Your task to perform on an android device: change the clock display to analog Image 0: 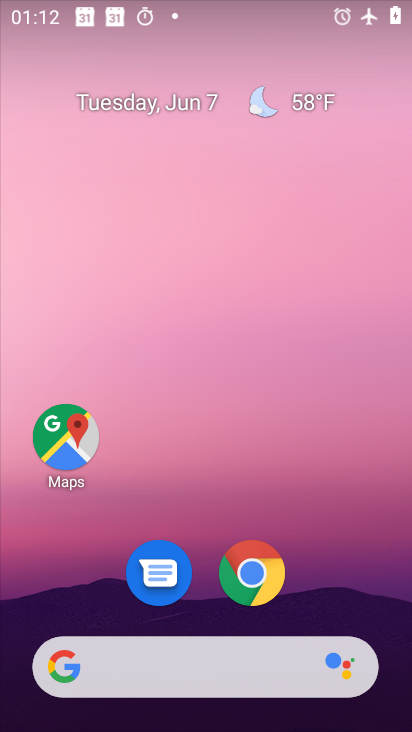
Step 0: drag from (309, 590) to (359, 50)
Your task to perform on an android device: change the clock display to analog Image 1: 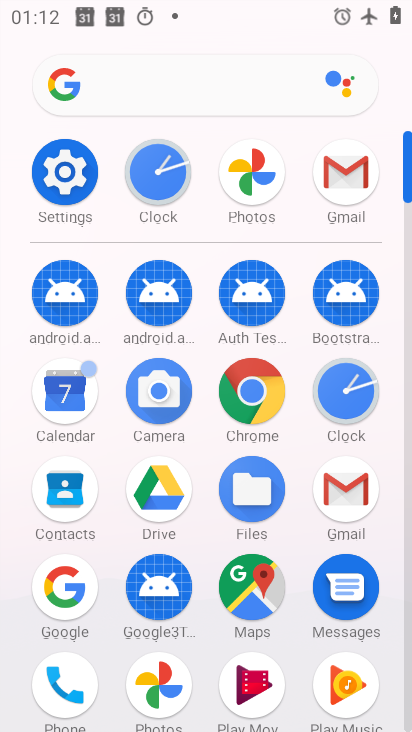
Step 1: click (360, 390)
Your task to perform on an android device: change the clock display to analog Image 2: 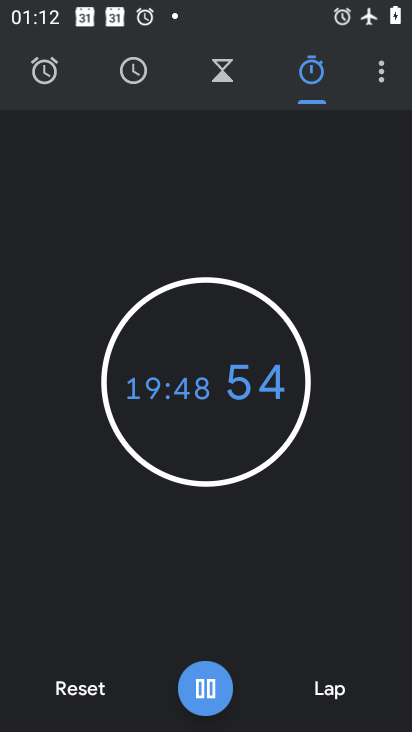
Step 2: click (378, 85)
Your task to perform on an android device: change the clock display to analog Image 3: 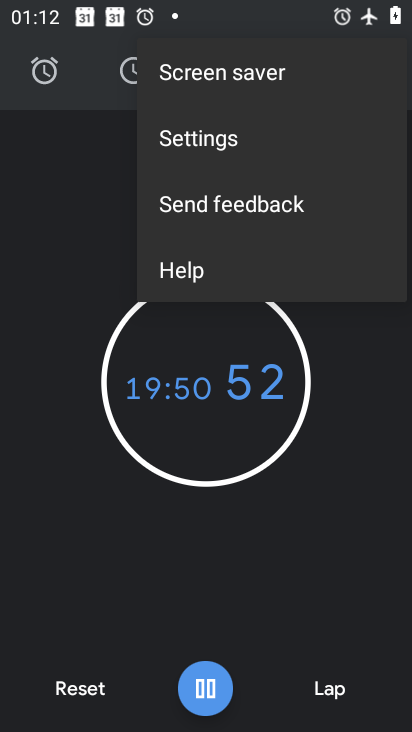
Step 3: click (212, 135)
Your task to perform on an android device: change the clock display to analog Image 4: 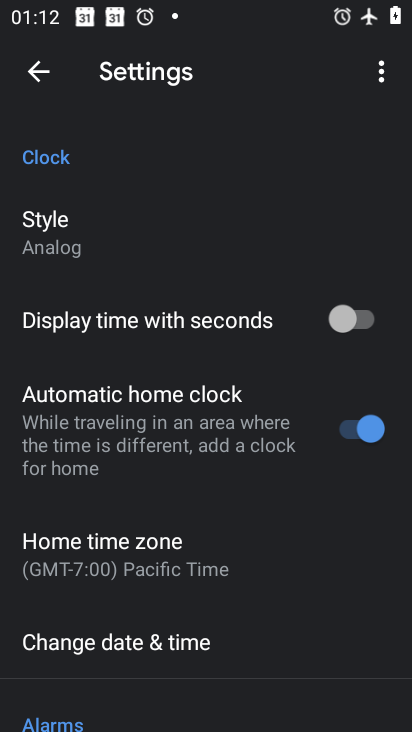
Step 4: click (88, 246)
Your task to perform on an android device: change the clock display to analog Image 5: 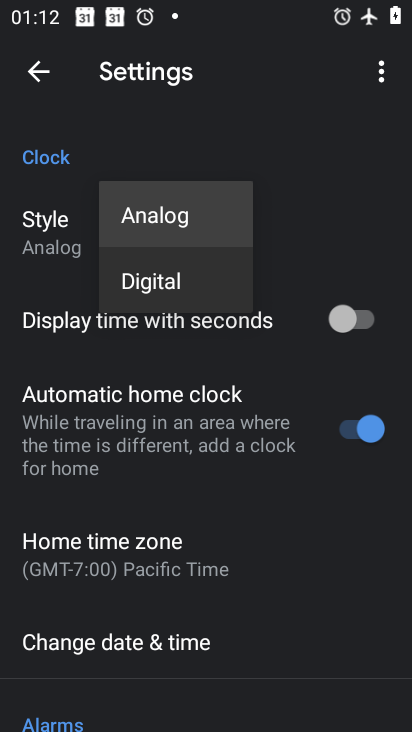
Step 5: click (160, 219)
Your task to perform on an android device: change the clock display to analog Image 6: 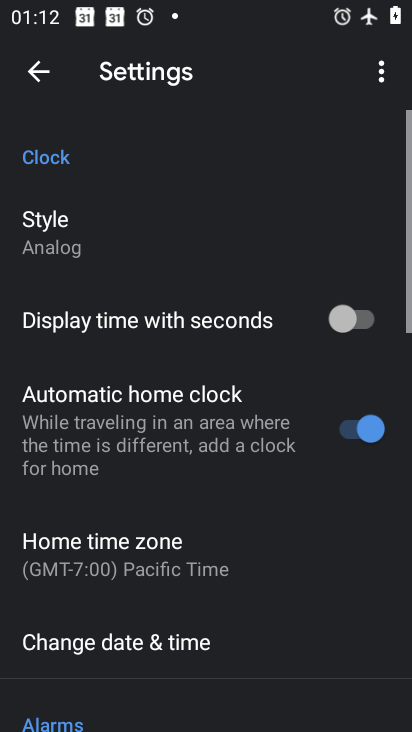
Step 6: task complete